Your task to perform on an android device: empty trash in the gmail app Image 0: 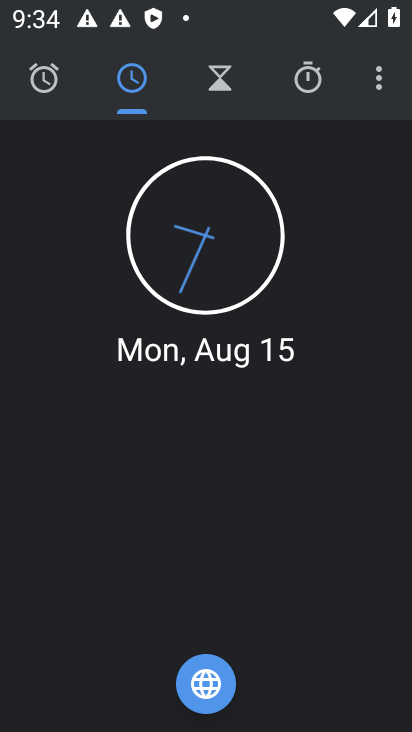
Step 0: press home button
Your task to perform on an android device: empty trash in the gmail app Image 1: 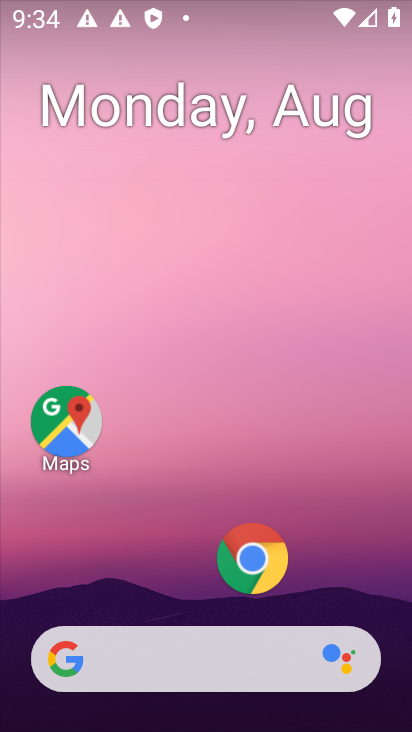
Step 1: drag from (196, 576) to (199, 56)
Your task to perform on an android device: empty trash in the gmail app Image 2: 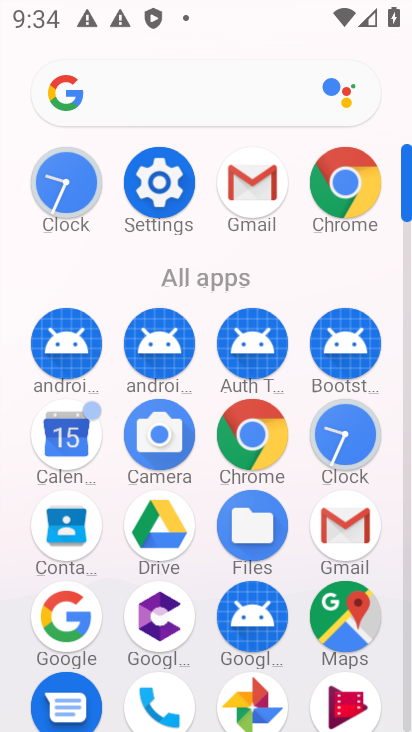
Step 2: click (246, 175)
Your task to perform on an android device: empty trash in the gmail app Image 3: 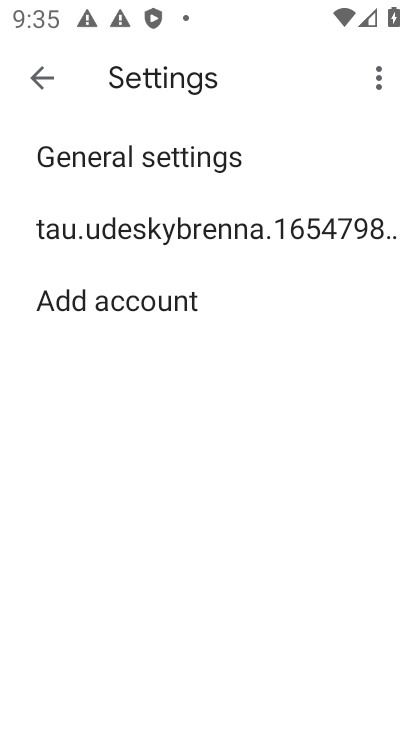
Step 3: click (39, 77)
Your task to perform on an android device: empty trash in the gmail app Image 4: 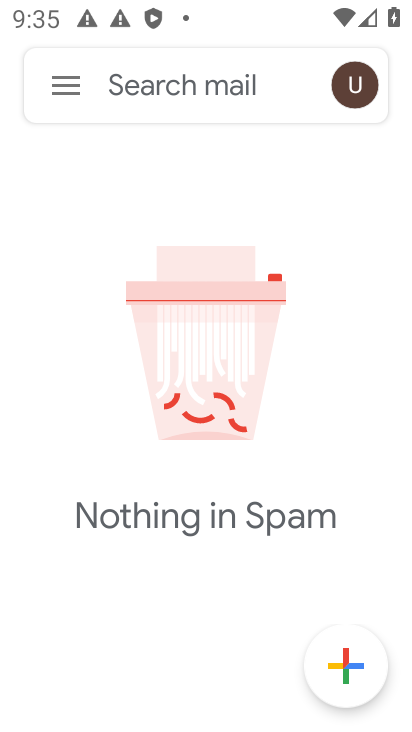
Step 4: click (73, 89)
Your task to perform on an android device: empty trash in the gmail app Image 5: 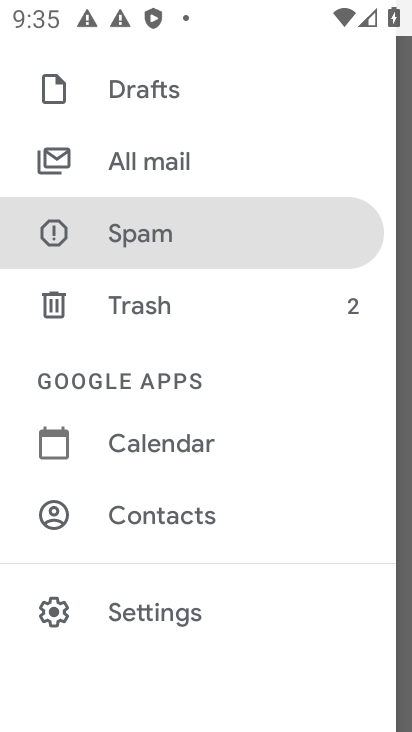
Step 5: click (161, 302)
Your task to perform on an android device: empty trash in the gmail app Image 6: 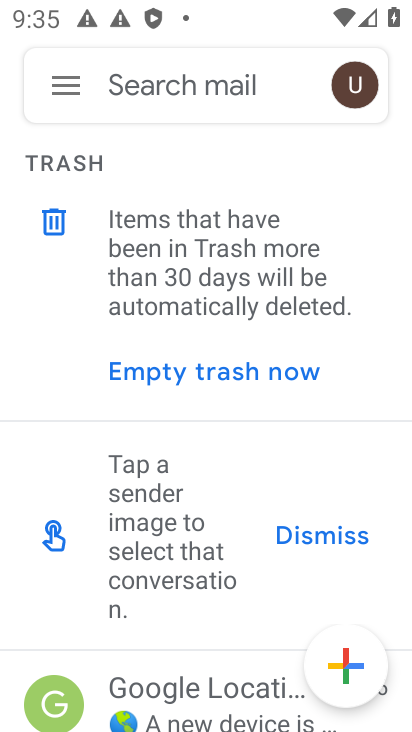
Step 6: click (227, 368)
Your task to perform on an android device: empty trash in the gmail app Image 7: 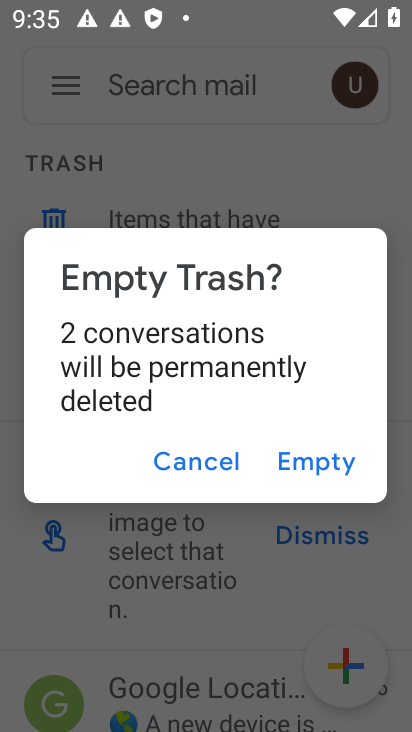
Step 7: click (319, 465)
Your task to perform on an android device: empty trash in the gmail app Image 8: 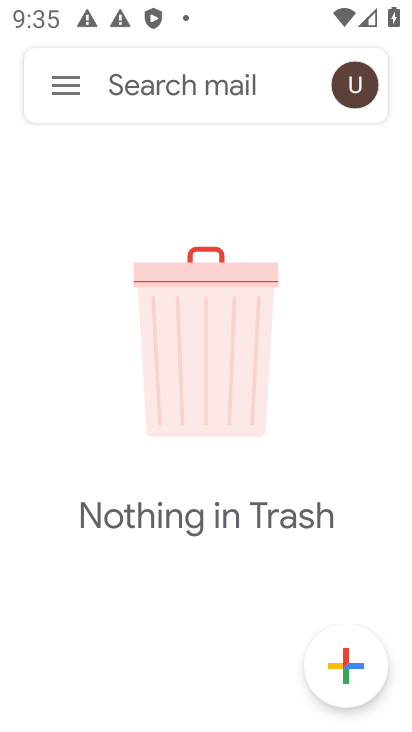
Step 8: task complete